Your task to perform on an android device: turn off notifications settings in the gmail app Image 0: 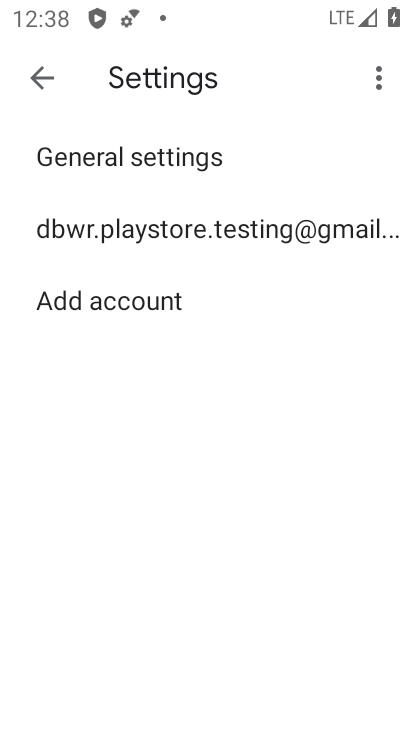
Step 0: click (224, 234)
Your task to perform on an android device: turn off notifications settings in the gmail app Image 1: 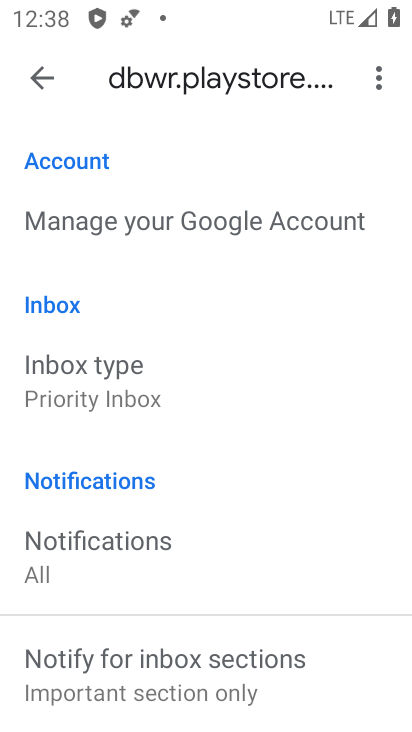
Step 1: drag from (182, 663) to (320, 267)
Your task to perform on an android device: turn off notifications settings in the gmail app Image 2: 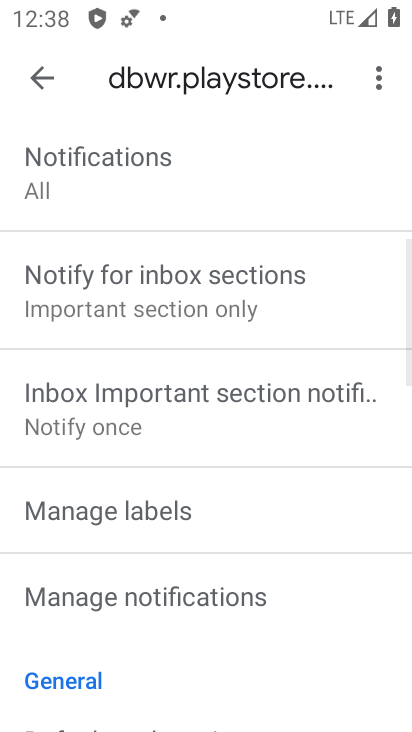
Step 2: click (196, 636)
Your task to perform on an android device: turn off notifications settings in the gmail app Image 3: 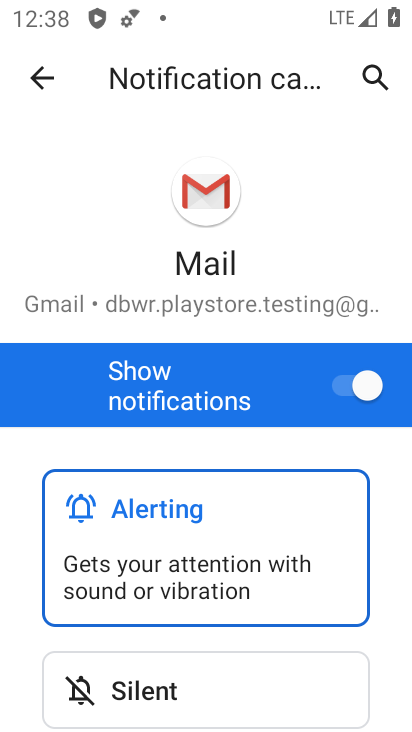
Step 3: click (364, 388)
Your task to perform on an android device: turn off notifications settings in the gmail app Image 4: 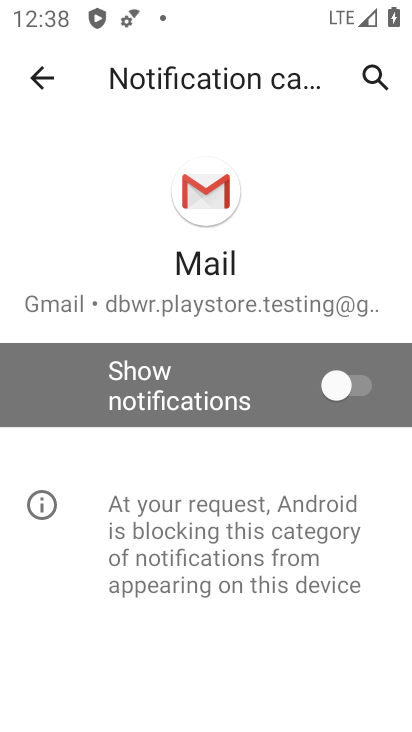
Step 4: task complete